Your task to perform on an android device: clear history in the chrome app Image 0: 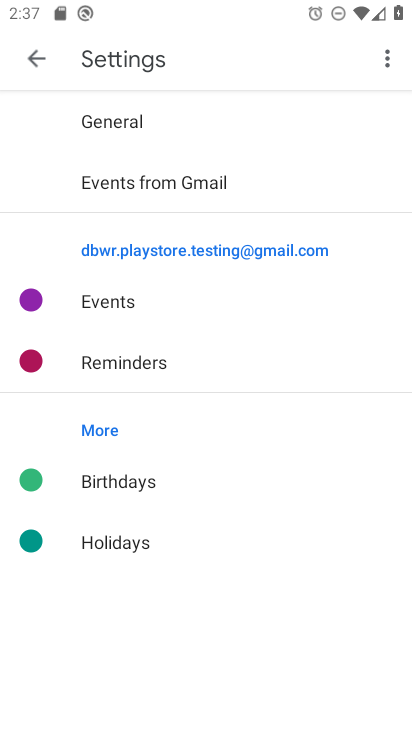
Step 0: press home button
Your task to perform on an android device: clear history in the chrome app Image 1: 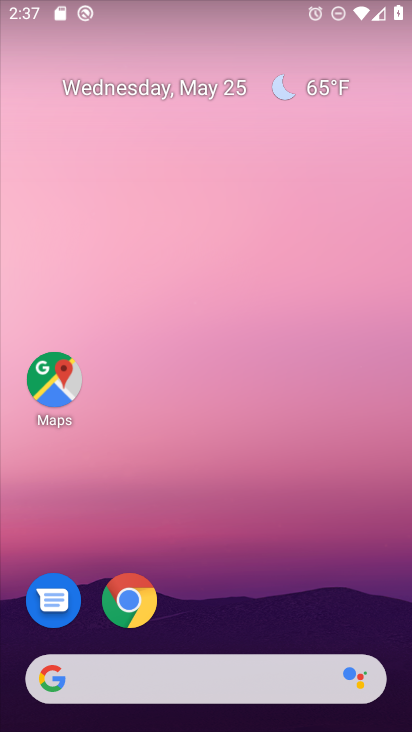
Step 1: drag from (234, 530) to (227, 114)
Your task to perform on an android device: clear history in the chrome app Image 2: 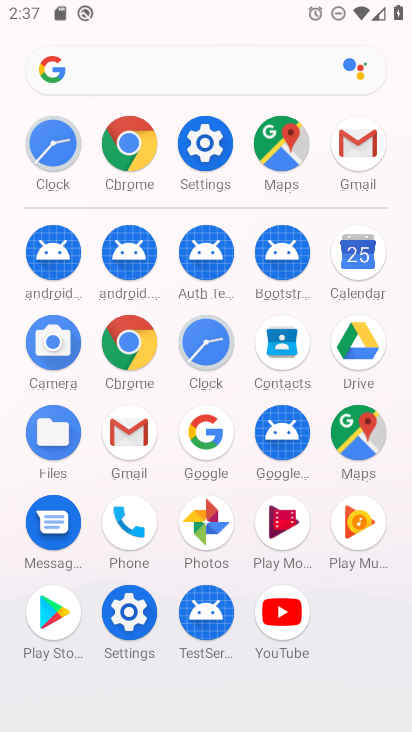
Step 2: click (125, 337)
Your task to perform on an android device: clear history in the chrome app Image 3: 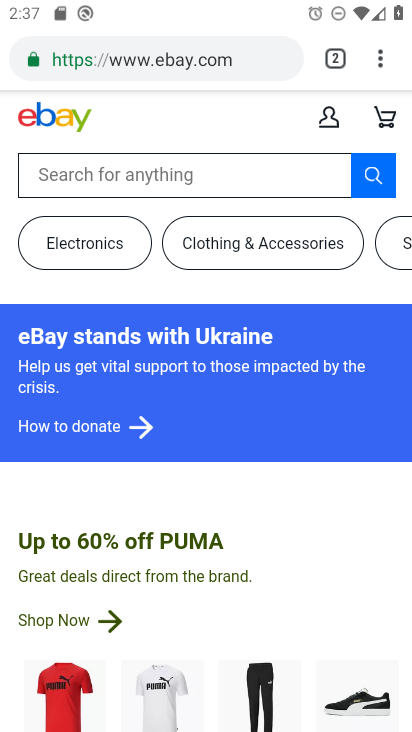
Step 3: drag from (383, 64) to (172, 331)
Your task to perform on an android device: clear history in the chrome app Image 4: 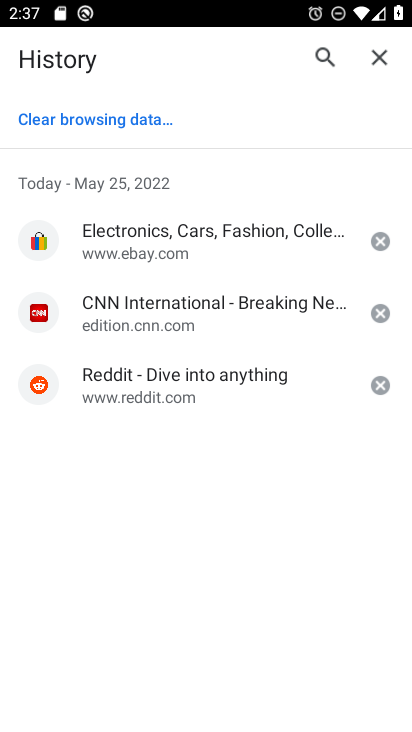
Step 4: click (118, 125)
Your task to perform on an android device: clear history in the chrome app Image 5: 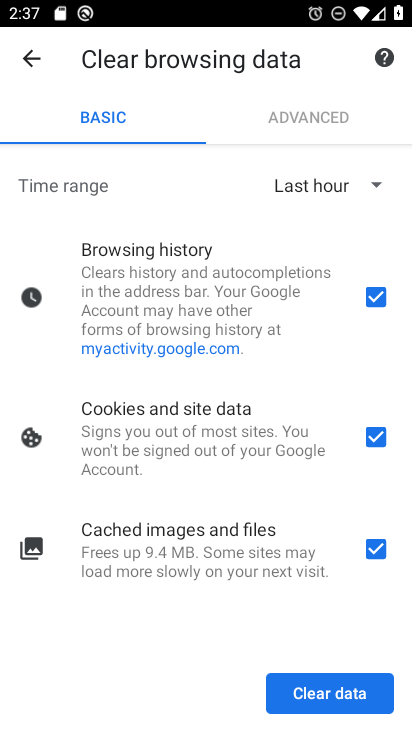
Step 5: click (346, 191)
Your task to perform on an android device: clear history in the chrome app Image 6: 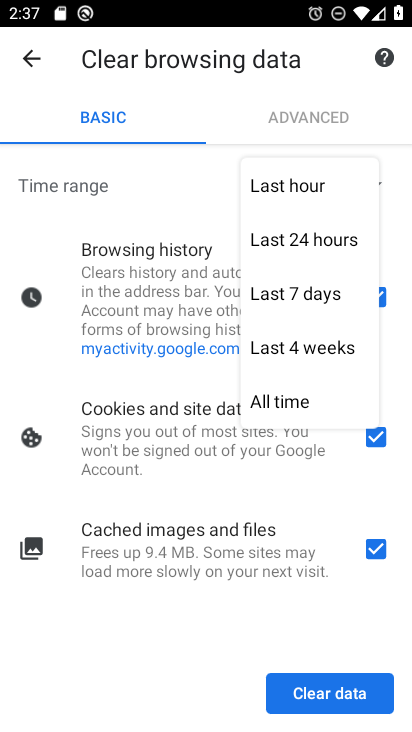
Step 6: click (300, 388)
Your task to perform on an android device: clear history in the chrome app Image 7: 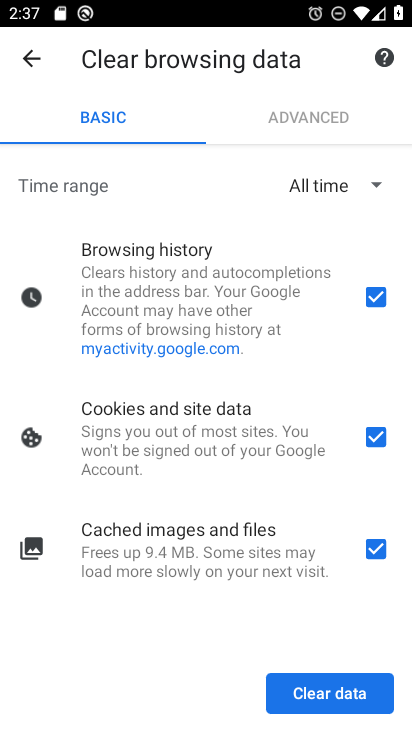
Step 7: click (300, 682)
Your task to perform on an android device: clear history in the chrome app Image 8: 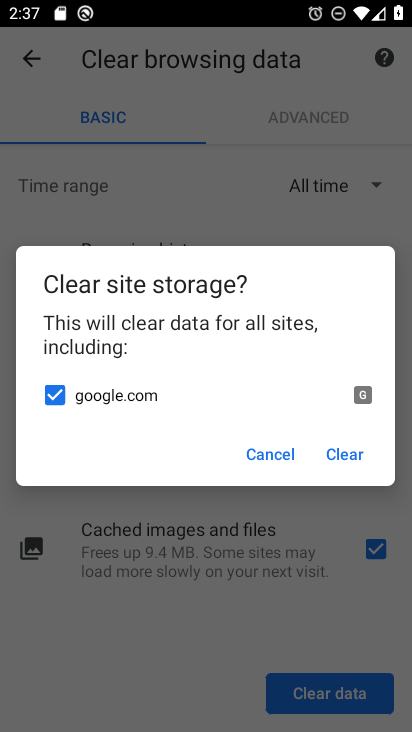
Step 8: click (342, 452)
Your task to perform on an android device: clear history in the chrome app Image 9: 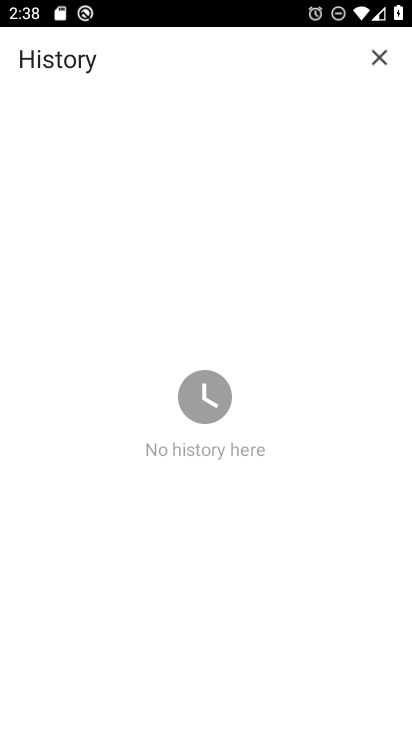
Step 9: task complete